Your task to perform on an android device: turn off javascript in the chrome app Image 0: 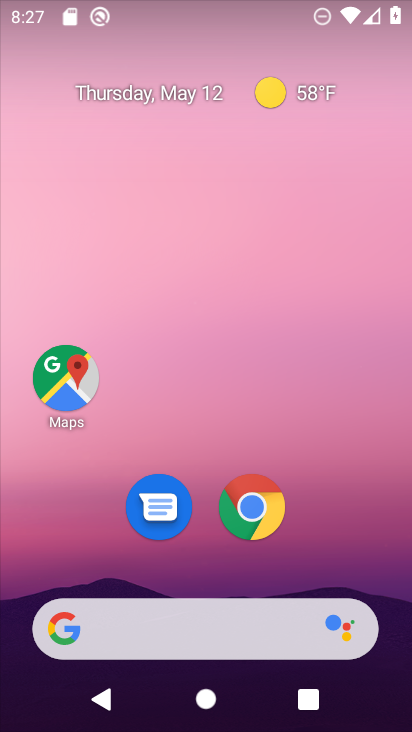
Step 0: click (268, 495)
Your task to perform on an android device: turn off javascript in the chrome app Image 1: 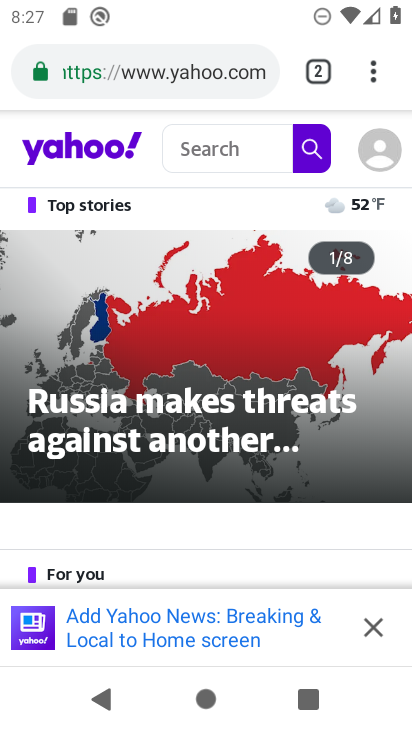
Step 1: drag from (376, 75) to (135, 503)
Your task to perform on an android device: turn off javascript in the chrome app Image 2: 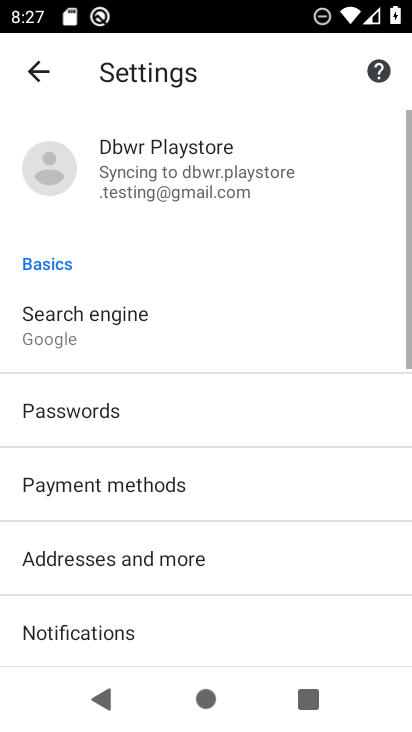
Step 2: drag from (156, 597) to (174, 315)
Your task to perform on an android device: turn off javascript in the chrome app Image 3: 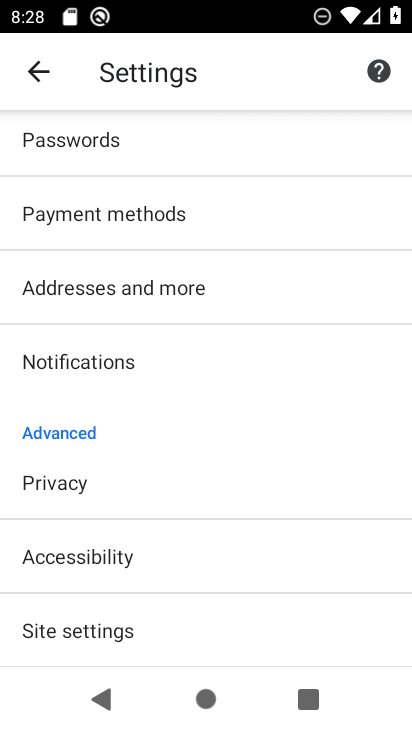
Step 3: drag from (114, 576) to (157, 339)
Your task to perform on an android device: turn off javascript in the chrome app Image 4: 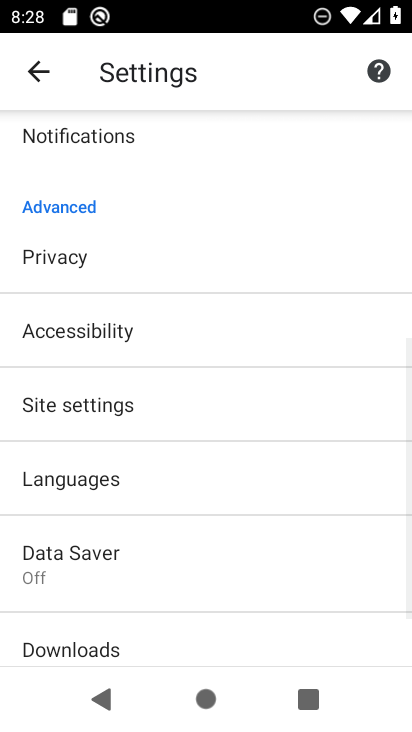
Step 4: click (157, 417)
Your task to perform on an android device: turn off javascript in the chrome app Image 5: 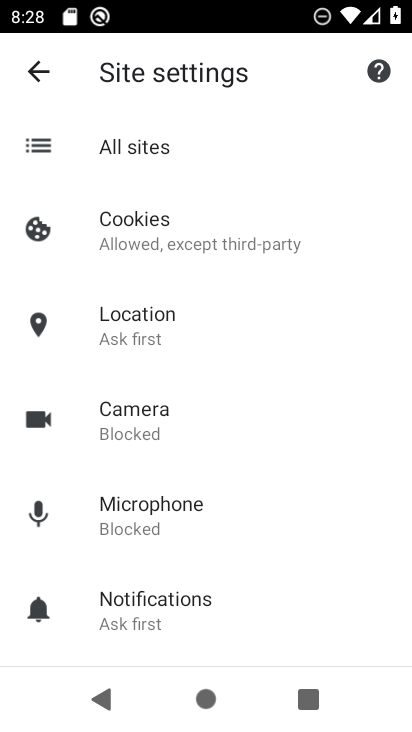
Step 5: drag from (181, 480) to (208, 300)
Your task to perform on an android device: turn off javascript in the chrome app Image 6: 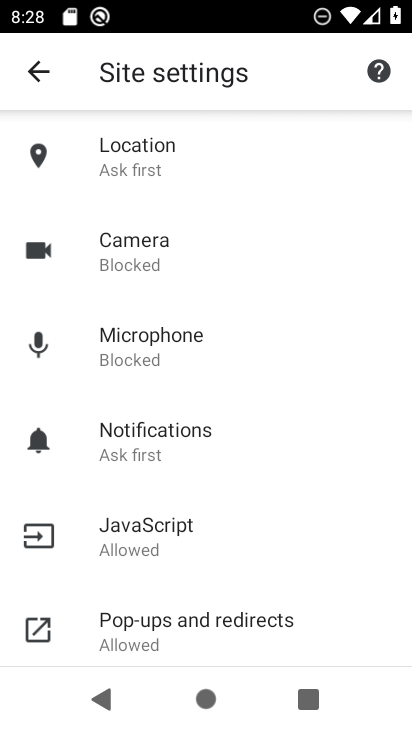
Step 6: click (184, 527)
Your task to perform on an android device: turn off javascript in the chrome app Image 7: 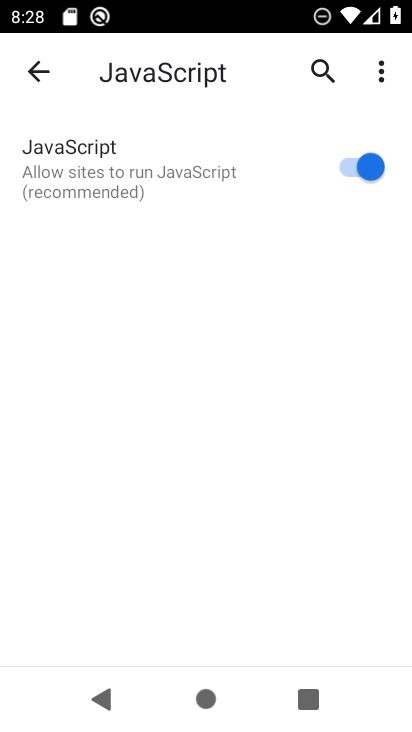
Step 7: click (355, 173)
Your task to perform on an android device: turn off javascript in the chrome app Image 8: 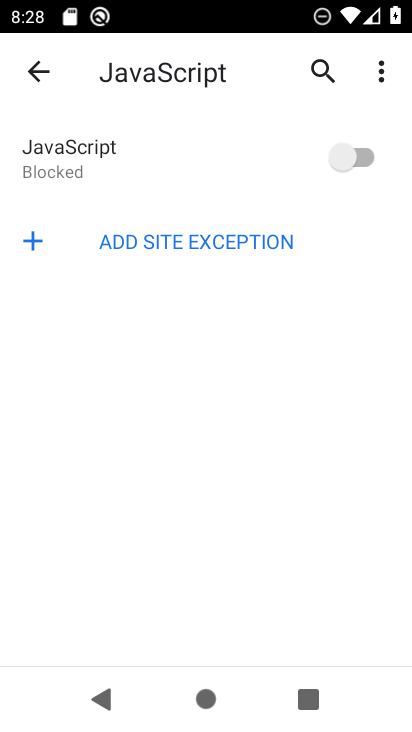
Step 8: task complete